Your task to perform on an android device: open wifi settings Image 0: 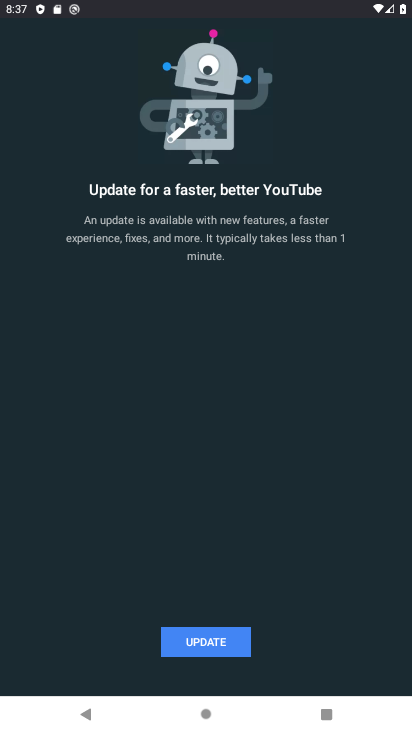
Step 0: press home button
Your task to perform on an android device: open wifi settings Image 1: 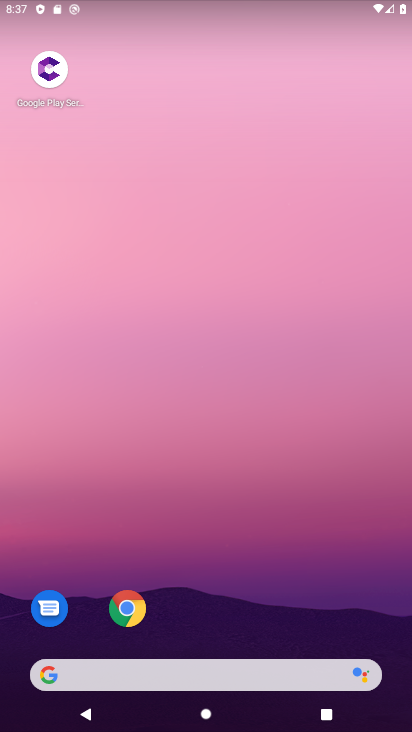
Step 1: drag from (234, 727) to (211, 77)
Your task to perform on an android device: open wifi settings Image 2: 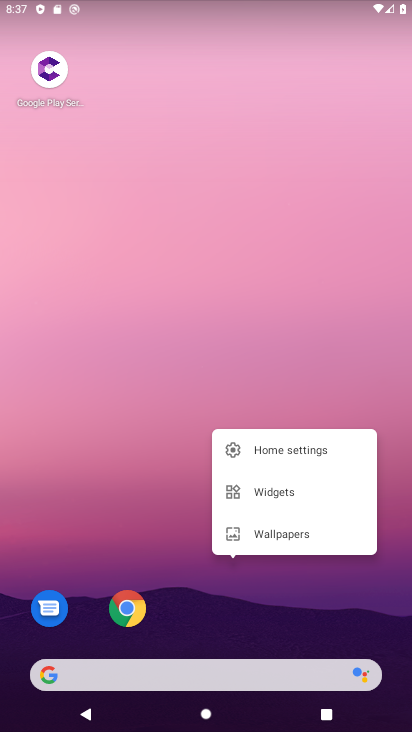
Step 2: click (211, 256)
Your task to perform on an android device: open wifi settings Image 3: 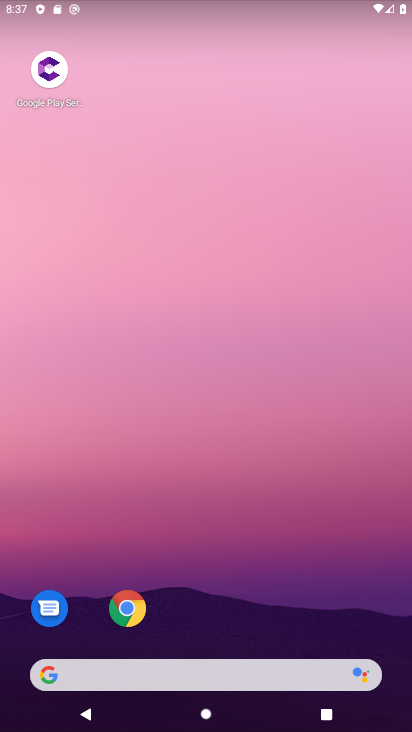
Step 3: drag from (218, 728) to (221, 112)
Your task to perform on an android device: open wifi settings Image 4: 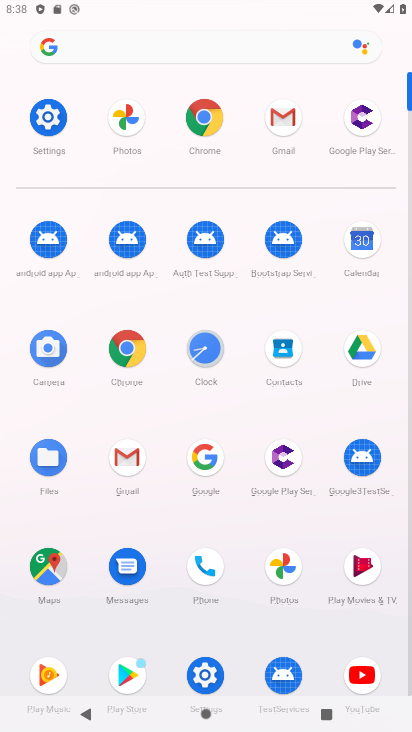
Step 4: click (53, 118)
Your task to perform on an android device: open wifi settings Image 5: 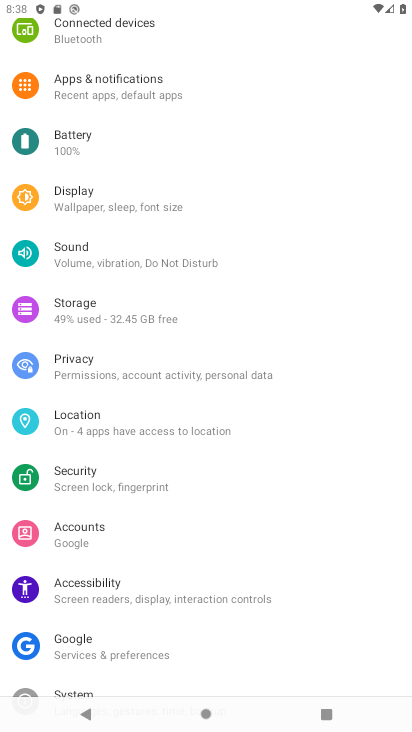
Step 5: drag from (283, 105) to (300, 493)
Your task to perform on an android device: open wifi settings Image 6: 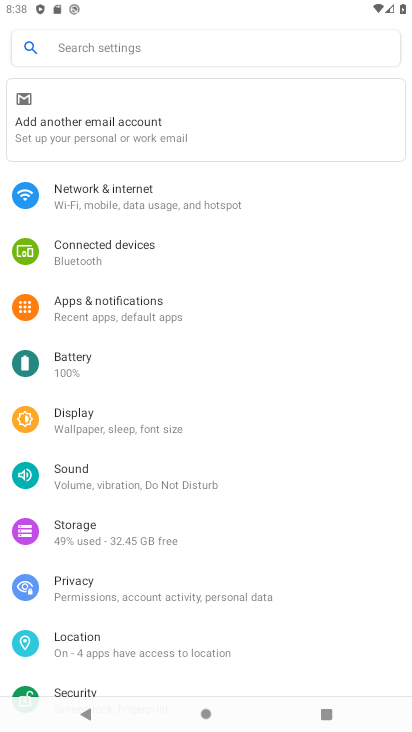
Step 6: click (101, 206)
Your task to perform on an android device: open wifi settings Image 7: 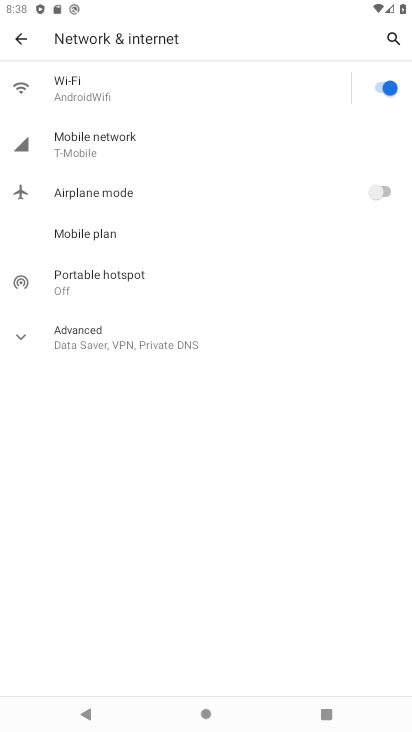
Step 7: click (67, 85)
Your task to perform on an android device: open wifi settings Image 8: 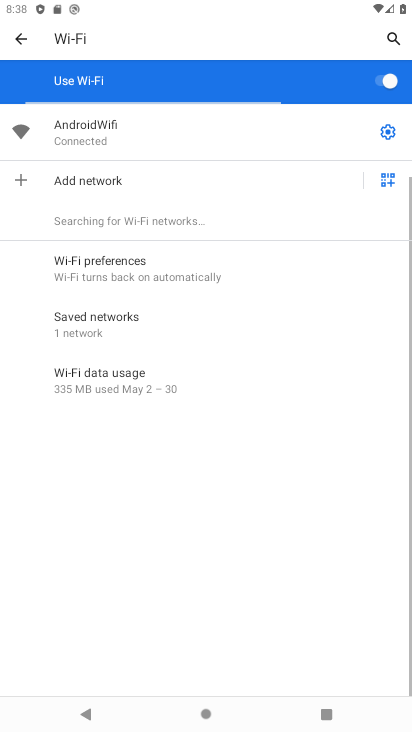
Step 8: task complete